Your task to perform on an android device: remove spam from my inbox in the gmail app Image 0: 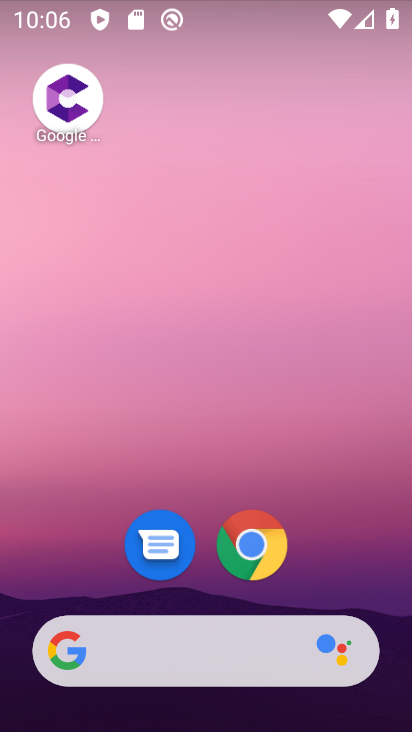
Step 0: drag from (208, 584) to (192, 133)
Your task to perform on an android device: remove spam from my inbox in the gmail app Image 1: 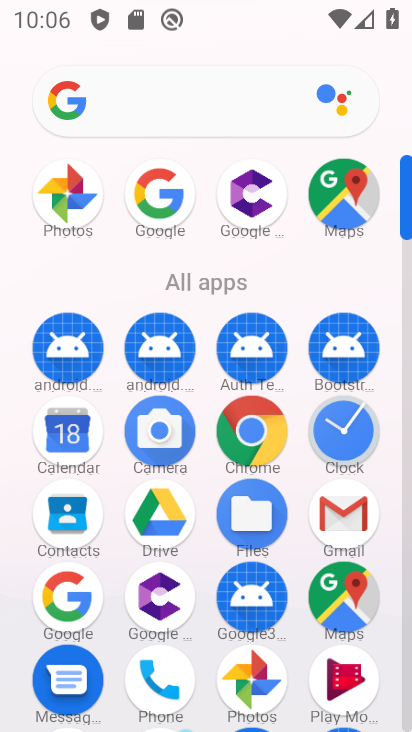
Step 1: click (355, 518)
Your task to perform on an android device: remove spam from my inbox in the gmail app Image 2: 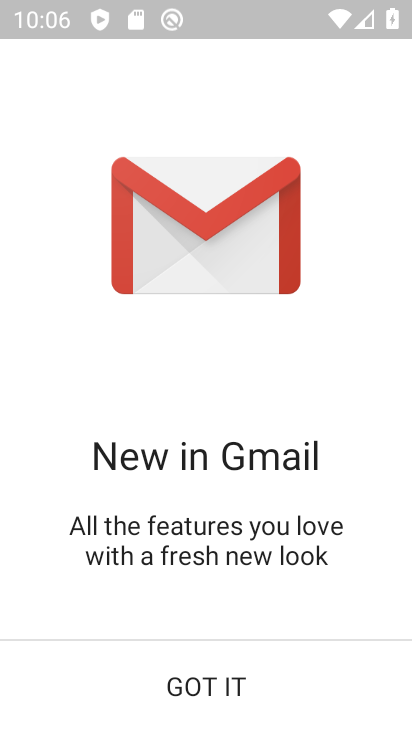
Step 2: click (267, 668)
Your task to perform on an android device: remove spam from my inbox in the gmail app Image 3: 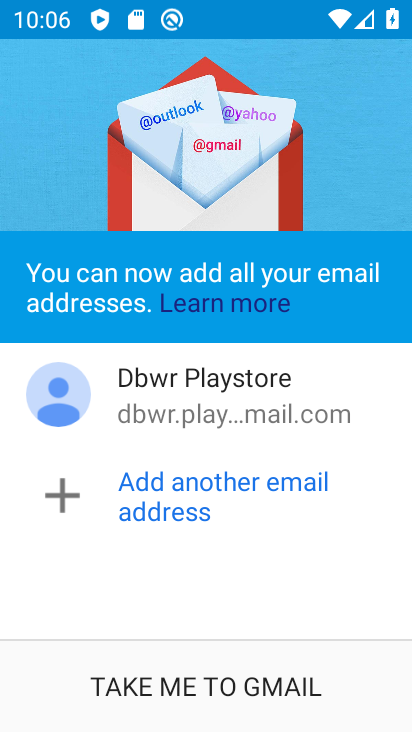
Step 3: click (158, 712)
Your task to perform on an android device: remove spam from my inbox in the gmail app Image 4: 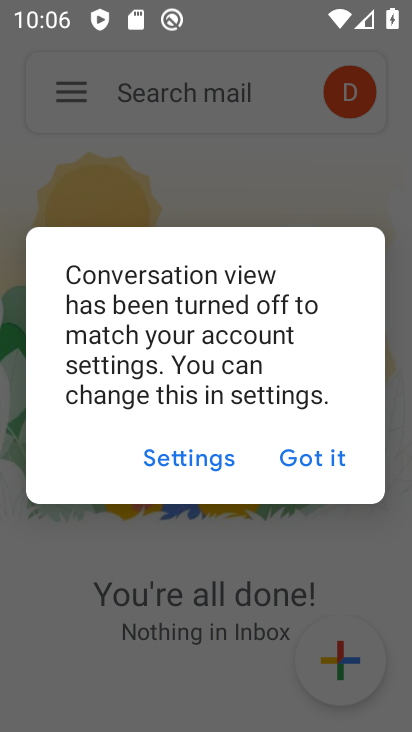
Step 4: click (277, 447)
Your task to perform on an android device: remove spam from my inbox in the gmail app Image 5: 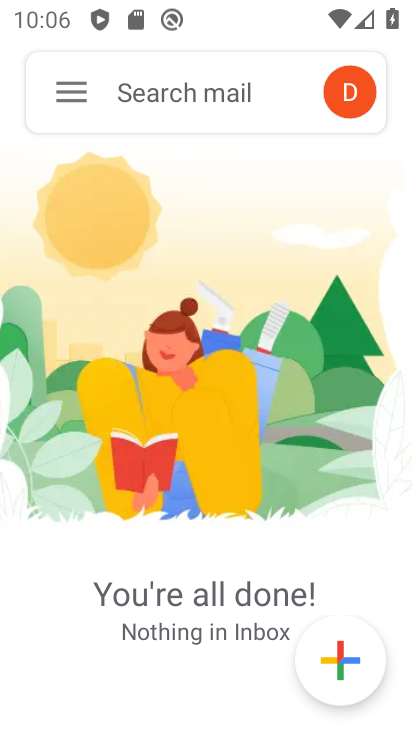
Step 5: click (65, 99)
Your task to perform on an android device: remove spam from my inbox in the gmail app Image 6: 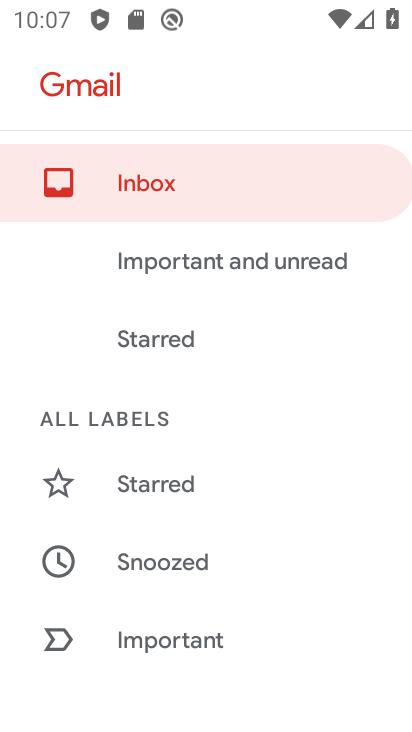
Step 6: drag from (216, 528) to (234, 285)
Your task to perform on an android device: remove spam from my inbox in the gmail app Image 7: 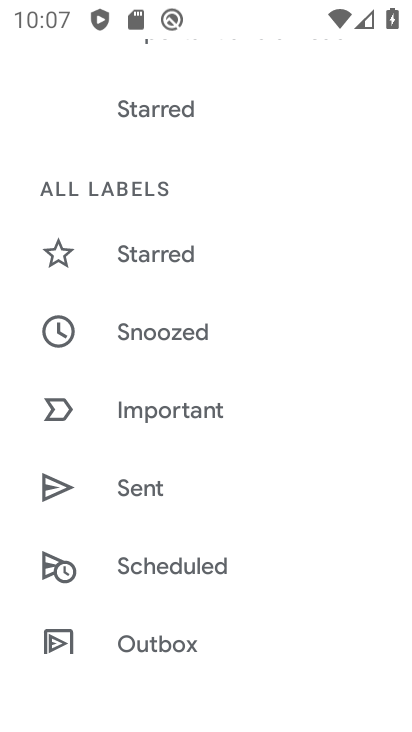
Step 7: drag from (143, 593) to (195, 347)
Your task to perform on an android device: remove spam from my inbox in the gmail app Image 8: 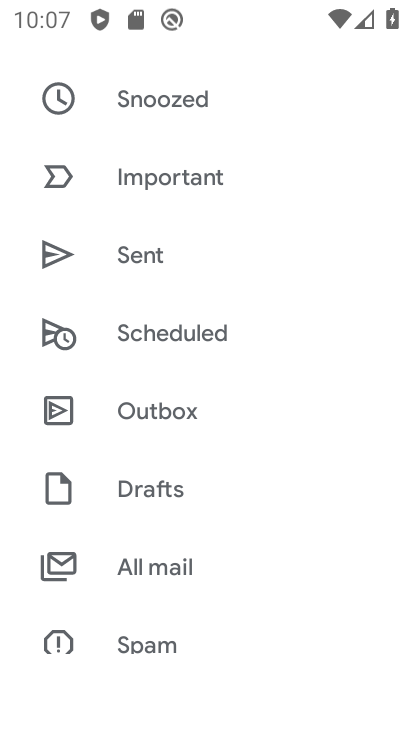
Step 8: click (158, 633)
Your task to perform on an android device: remove spam from my inbox in the gmail app Image 9: 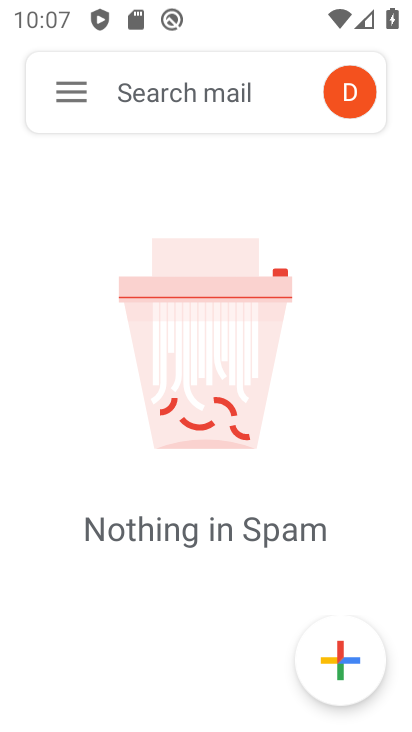
Step 9: task complete